Your task to perform on an android device: read, delete, or share a saved page in the chrome app Image 0: 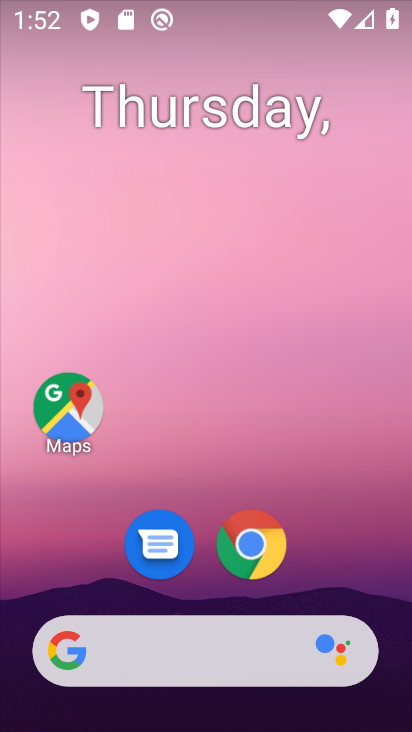
Step 0: click (245, 548)
Your task to perform on an android device: read, delete, or share a saved page in the chrome app Image 1: 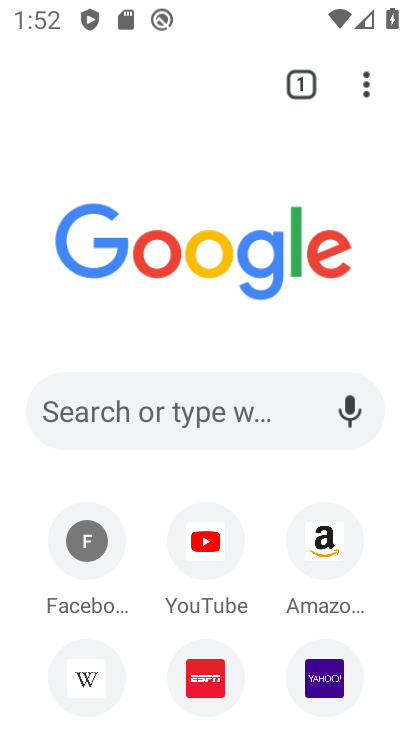
Step 1: click (364, 95)
Your task to perform on an android device: read, delete, or share a saved page in the chrome app Image 2: 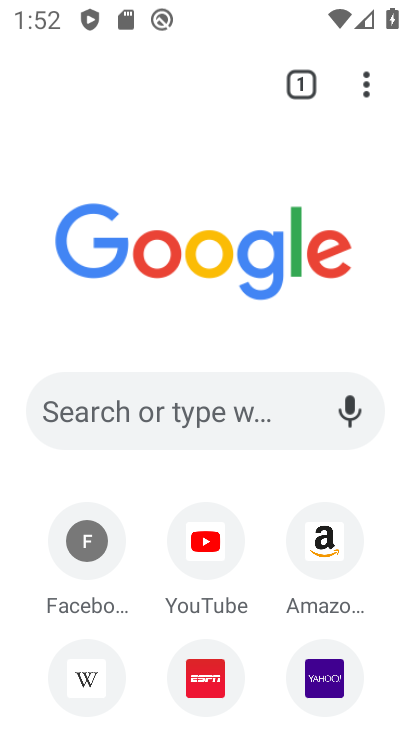
Step 2: click (363, 86)
Your task to perform on an android device: read, delete, or share a saved page in the chrome app Image 3: 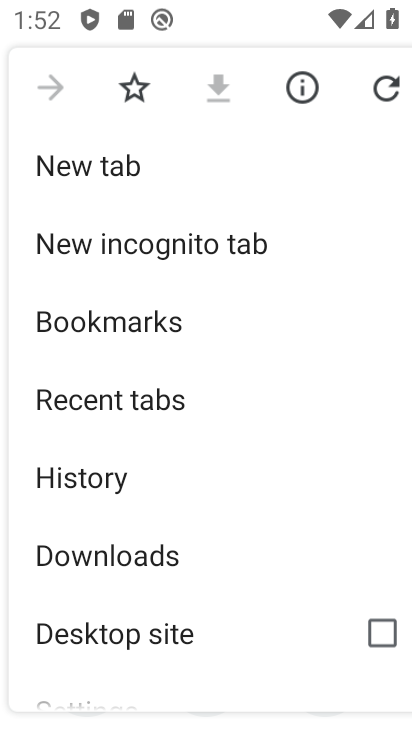
Step 3: drag from (181, 497) to (203, 189)
Your task to perform on an android device: read, delete, or share a saved page in the chrome app Image 4: 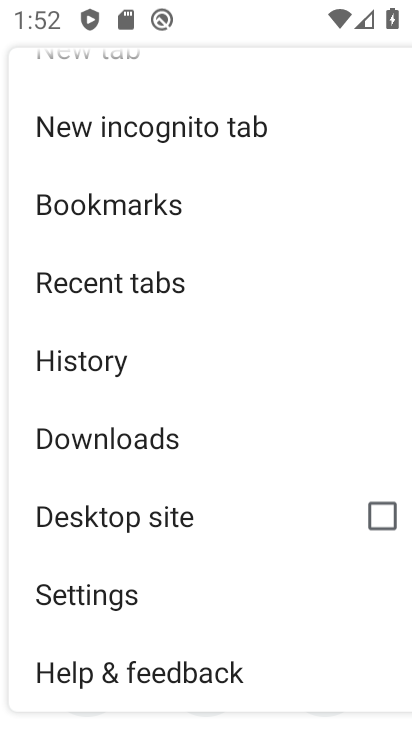
Step 4: click (176, 421)
Your task to perform on an android device: read, delete, or share a saved page in the chrome app Image 5: 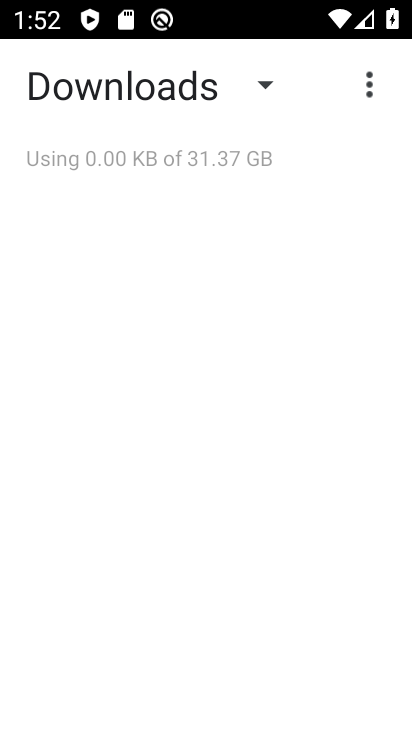
Step 5: task complete